Your task to perform on an android device: open the mobile data screen to see how much data has been used Image 0: 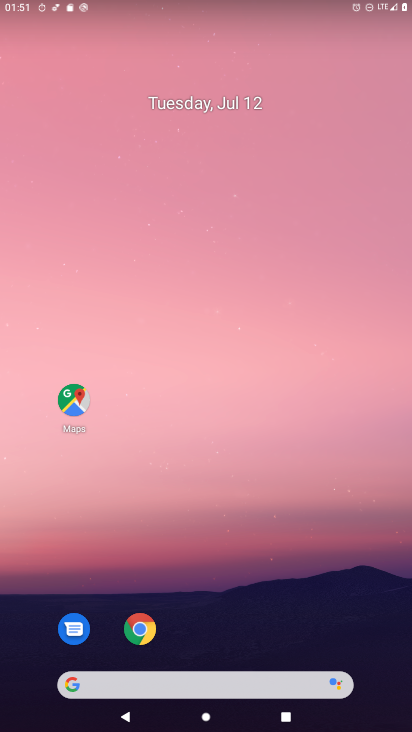
Step 0: drag from (38, 700) to (128, 41)
Your task to perform on an android device: open the mobile data screen to see how much data has been used Image 1: 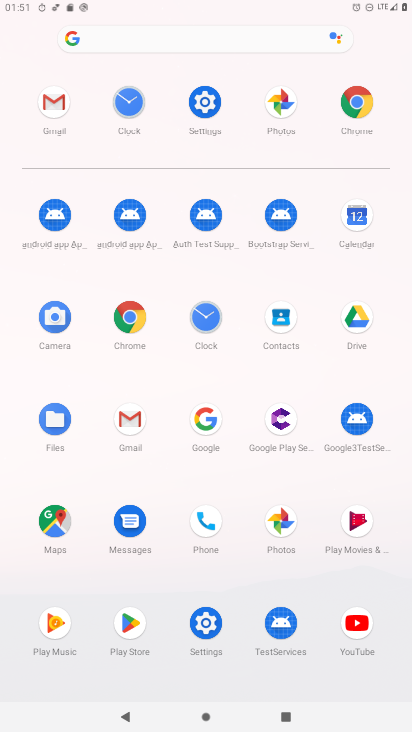
Step 1: click (204, 605)
Your task to perform on an android device: open the mobile data screen to see how much data has been used Image 2: 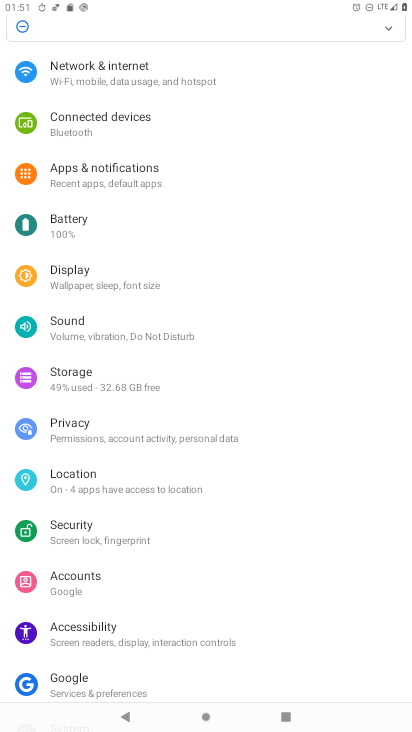
Step 2: click (120, 78)
Your task to perform on an android device: open the mobile data screen to see how much data has been used Image 3: 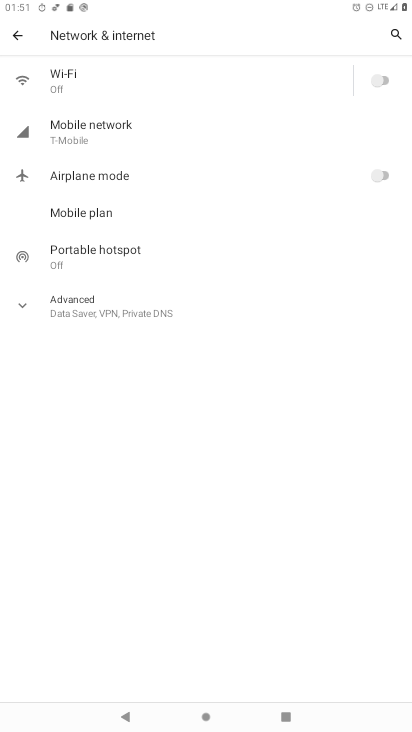
Step 3: click (88, 134)
Your task to perform on an android device: open the mobile data screen to see how much data has been used Image 4: 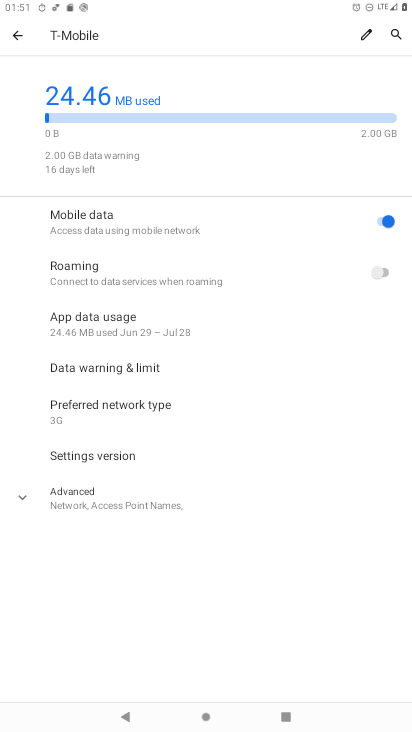
Step 4: task complete